Your task to perform on an android device: Open Google Image 0: 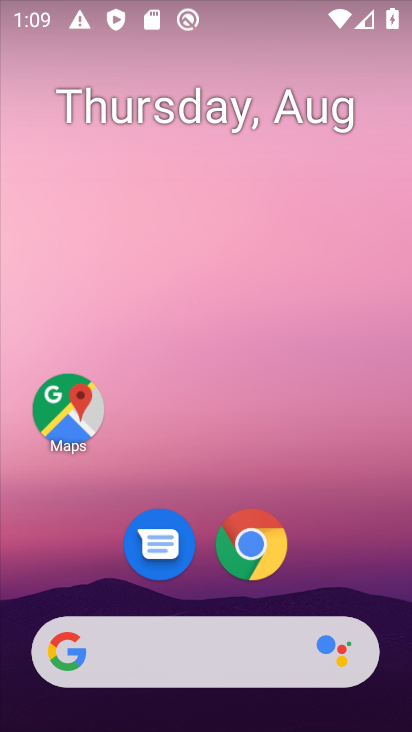
Step 0: drag from (207, 627) to (143, 86)
Your task to perform on an android device: Open Google Image 1: 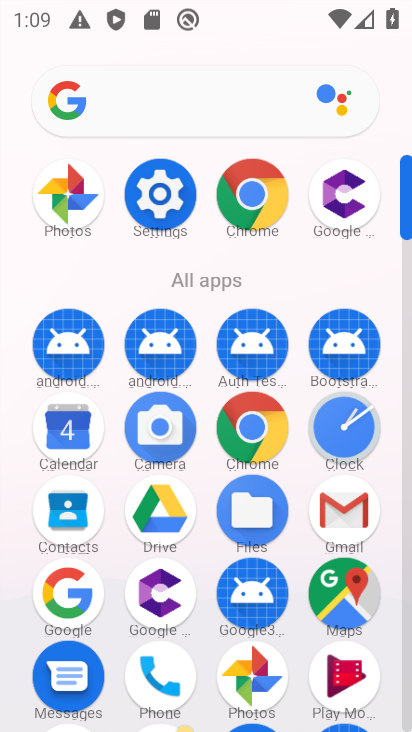
Step 1: click (57, 600)
Your task to perform on an android device: Open Google Image 2: 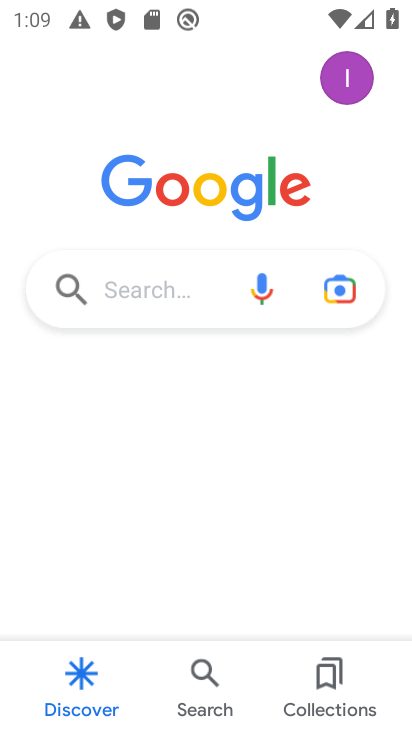
Step 2: click (146, 314)
Your task to perform on an android device: Open Google Image 3: 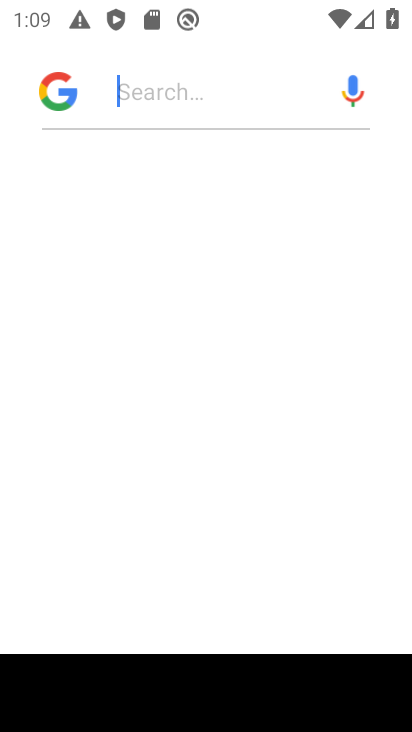
Step 3: task complete